Your task to perform on an android device: check data usage Image 0: 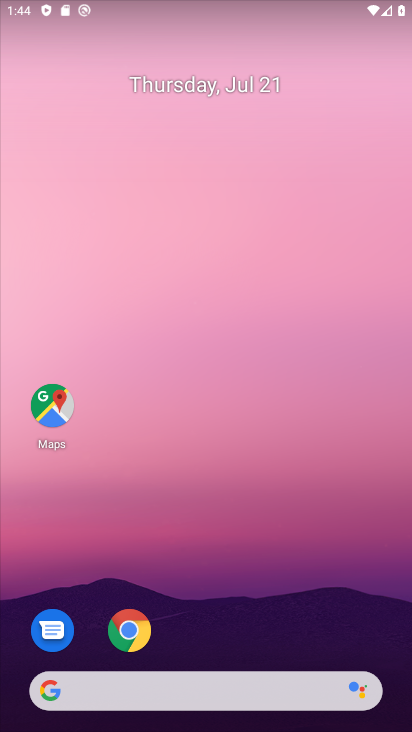
Step 0: drag from (231, 634) to (246, 183)
Your task to perform on an android device: check data usage Image 1: 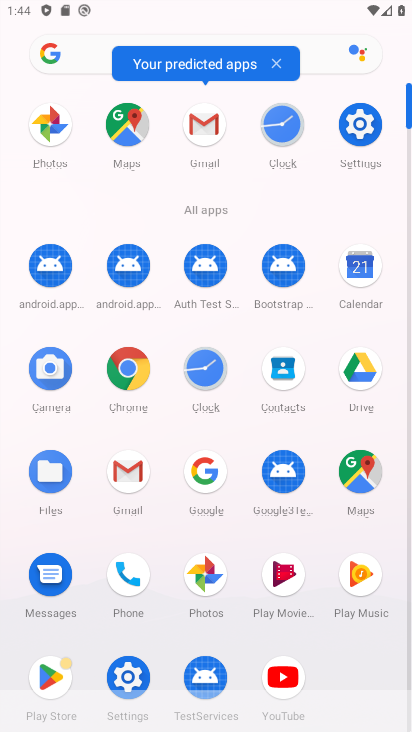
Step 1: click (359, 124)
Your task to perform on an android device: check data usage Image 2: 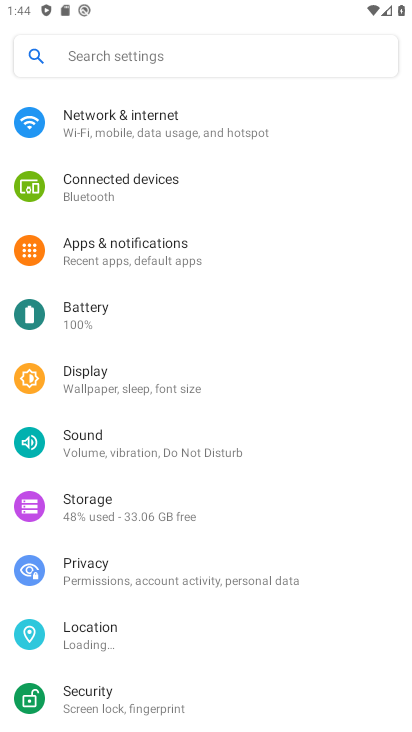
Step 2: click (118, 131)
Your task to perform on an android device: check data usage Image 3: 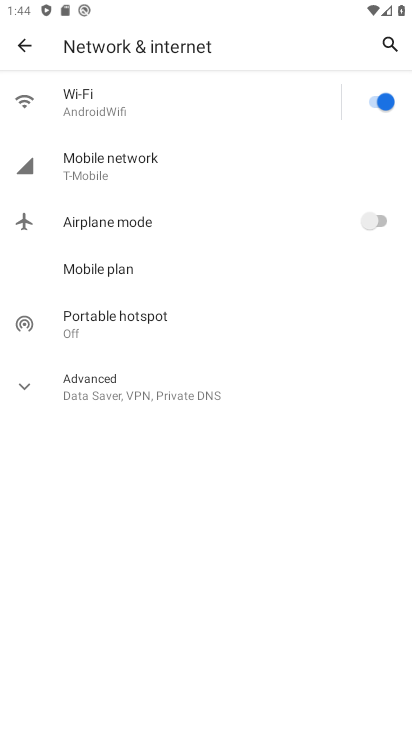
Step 3: drag from (166, 218) to (204, 531)
Your task to perform on an android device: check data usage Image 4: 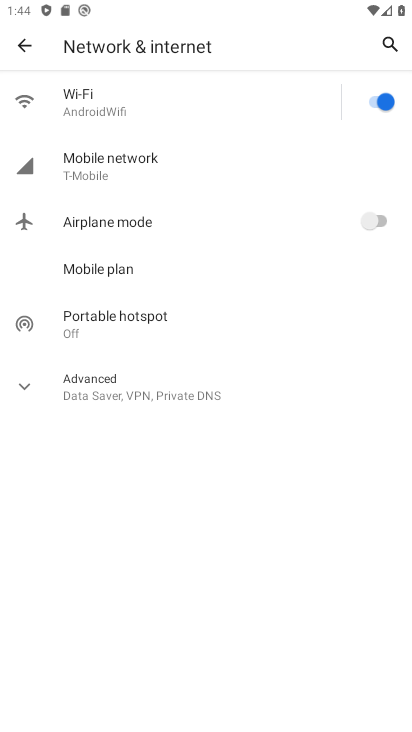
Step 4: click (129, 167)
Your task to perform on an android device: check data usage Image 5: 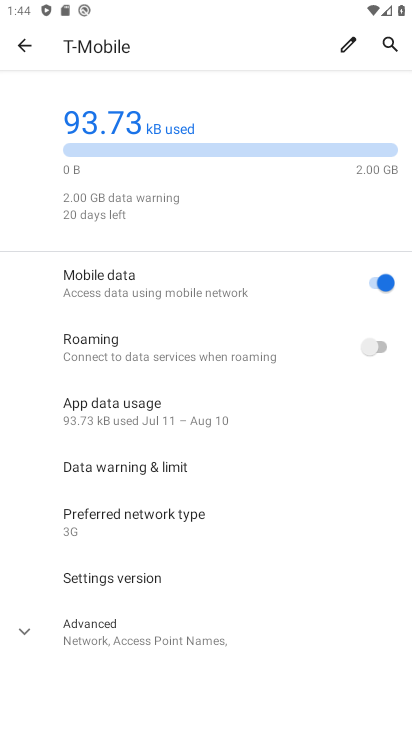
Step 5: task complete